Your task to perform on an android device: Go to notification settings Image 0: 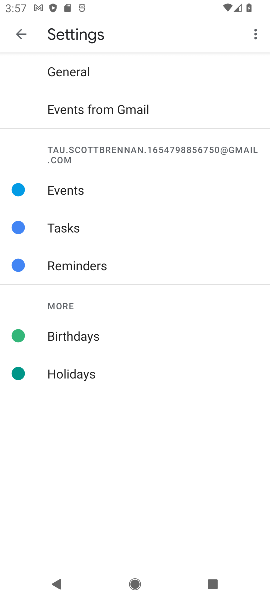
Step 0: press home button
Your task to perform on an android device: Go to notification settings Image 1: 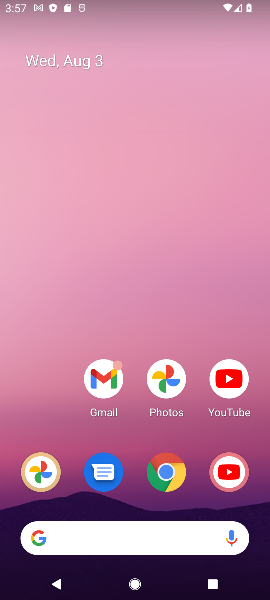
Step 1: drag from (203, 441) to (214, 126)
Your task to perform on an android device: Go to notification settings Image 2: 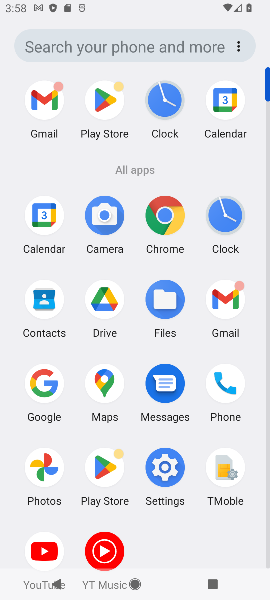
Step 2: click (158, 474)
Your task to perform on an android device: Go to notification settings Image 3: 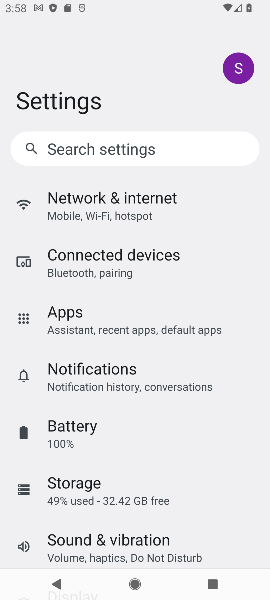
Step 3: click (107, 377)
Your task to perform on an android device: Go to notification settings Image 4: 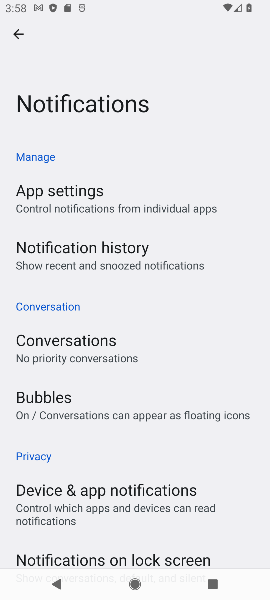
Step 4: task complete